Your task to perform on an android device: Open display settings Image 0: 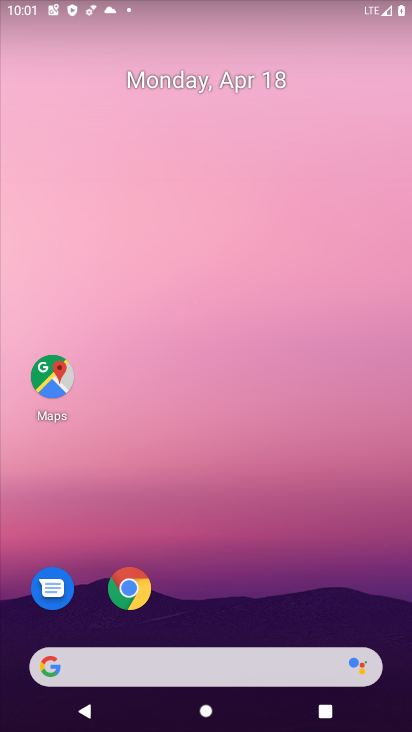
Step 0: drag from (370, 587) to (288, 137)
Your task to perform on an android device: Open display settings Image 1: 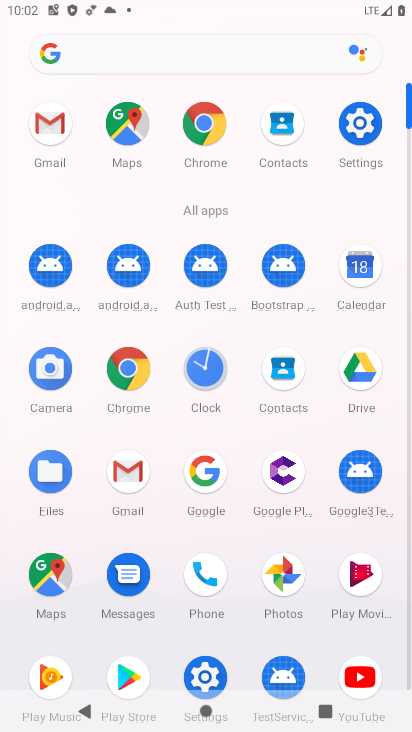
Step 1: click (411, 677)
Your task to perform on an android device: Open display settings Image 2: 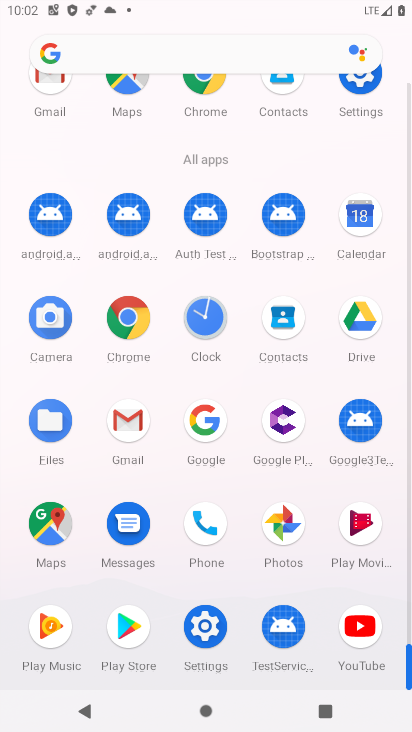
Step 2: click (204, 626)
Your task to perform on an android device: Open display settings Image 3: 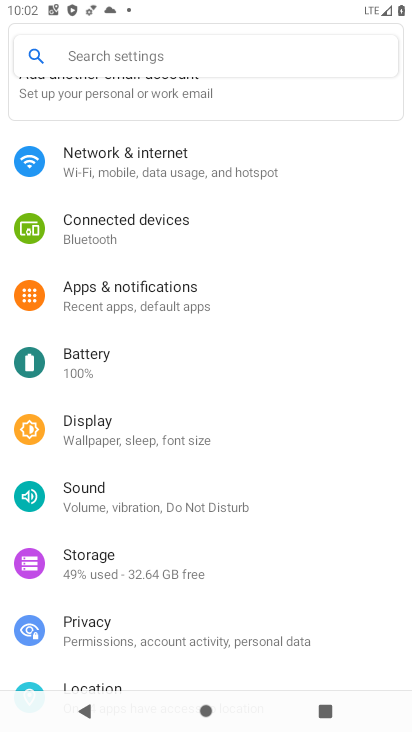
Step 3: click (106, 418)
Your task to perform on an android device: Open display settings Image 4: 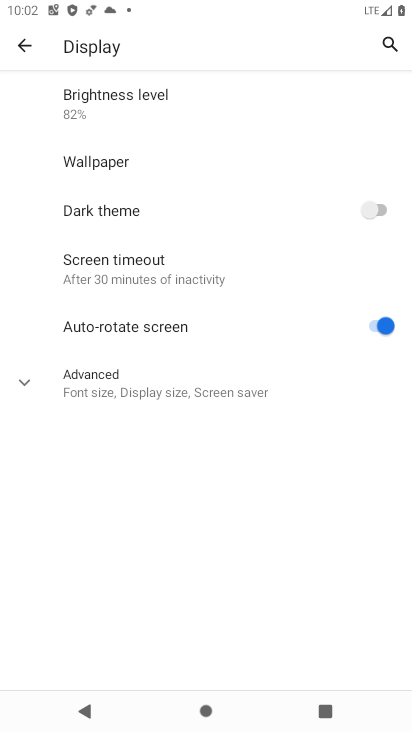
Step 4: click (35, 378)
Your task to perform on an android device: Open display settings Image 5: 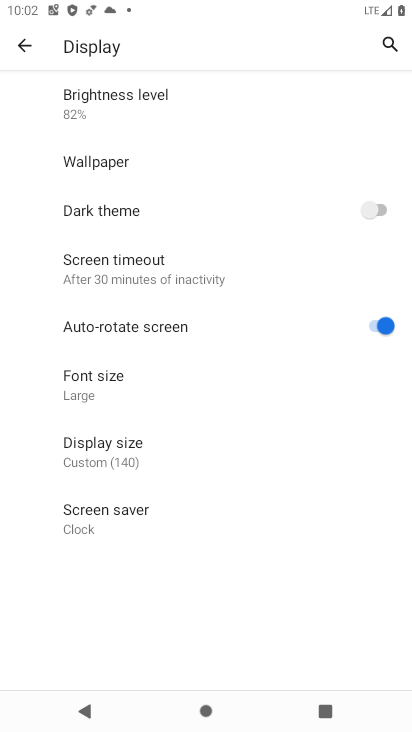
Step 5: task complete